Your task to perform on an android device: turn off priority inbox in the gmail app Image 0: 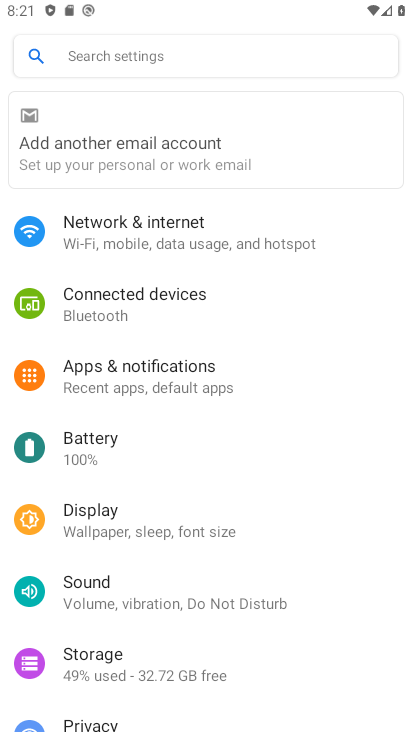
Step 0: press home button
Your task to perform on an android device: turn off priority inbox in the gmail app Image 1: 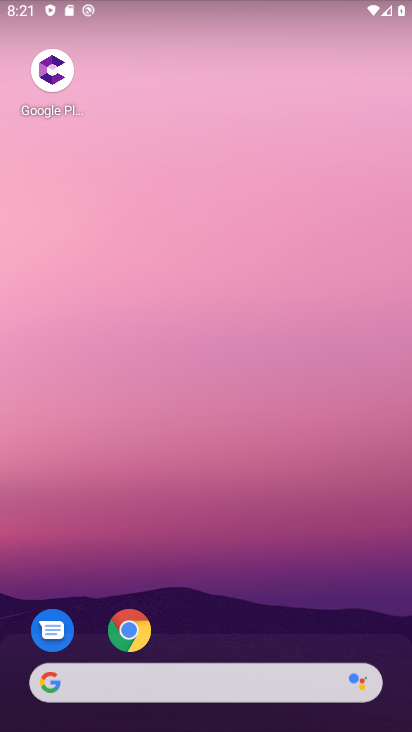
Step 1: drag from (211, 607) to (288, 11)
Your task to perform on an android device: turn off priority inbox in the gmail app Image 2: 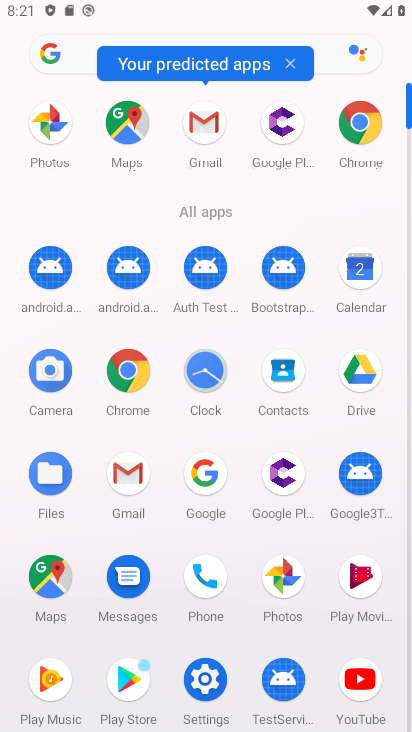
Step 2: click (128, 498)
Your task to perform on an android device: turn off priority inbox in the gmail app Image 3: 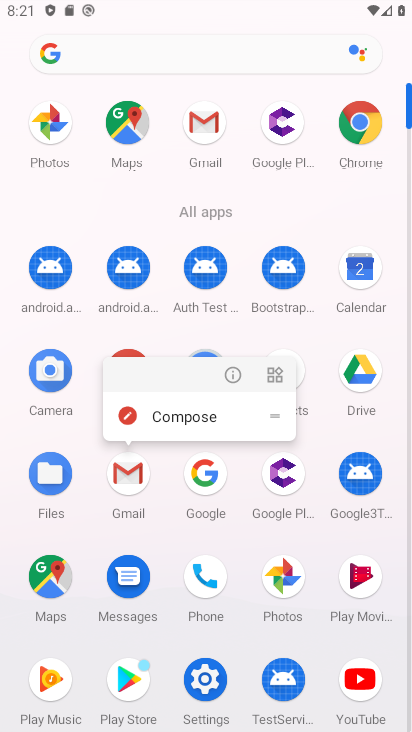
Step 3: click (128, 498)
Your task to perform on an android device: turn off priority inbox in the gmail app Image 4: 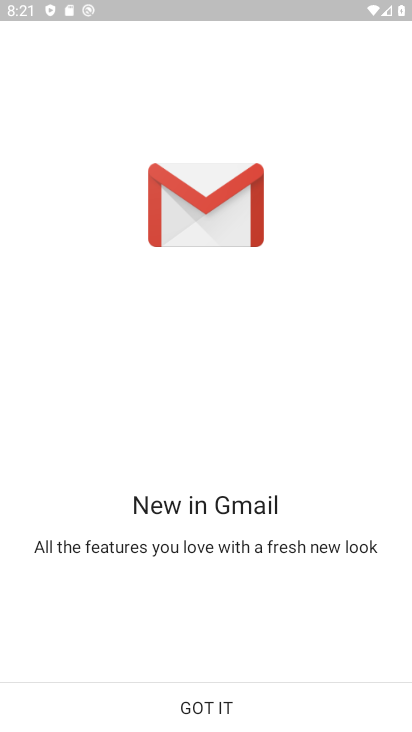
Step 4: click (217, 702)
Your task to perform on an android device: turn off priority inbox in the gmail app Image 5: 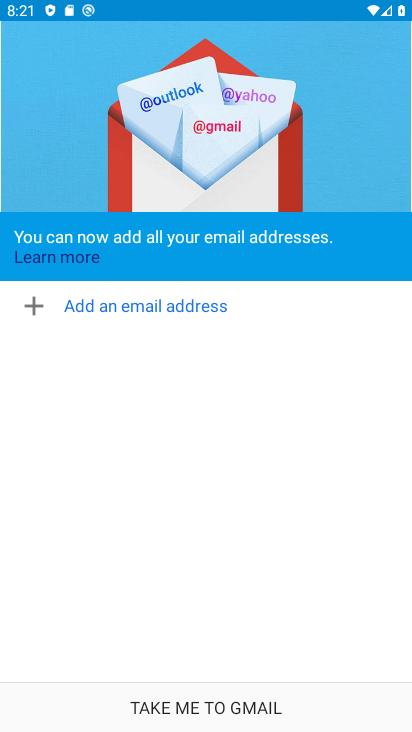
Step 5: click (237, 724)
Your task to perform on an android device: turn off priority inbox in the gmail app Image 6: 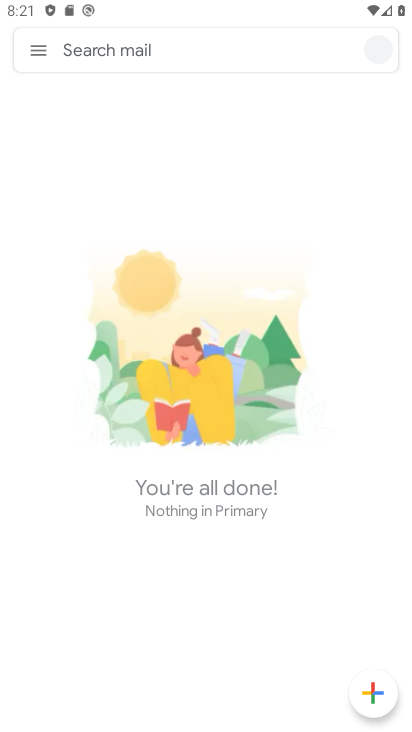
Step 6: click (36, 46)
Your task to perform on an android device: turn off priority inbox in the gmail app Image 7: 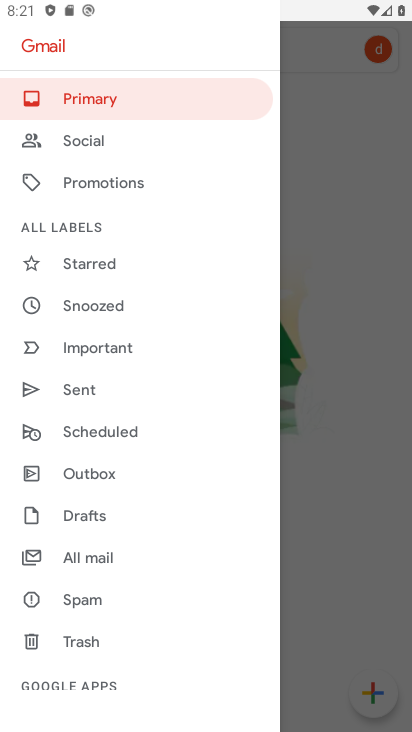
Step 7: drag from (86, 614) to (174, 106)
Your task to perform on an android device: turn off priority inbox in the gmail app Image 8: 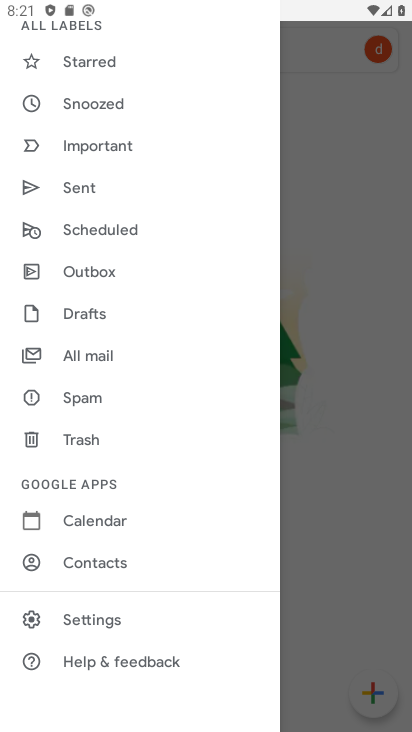
Step 8: click (100, 616)
Your task to perform on an android device: turn off priority inbox in the gmail app Image 9: 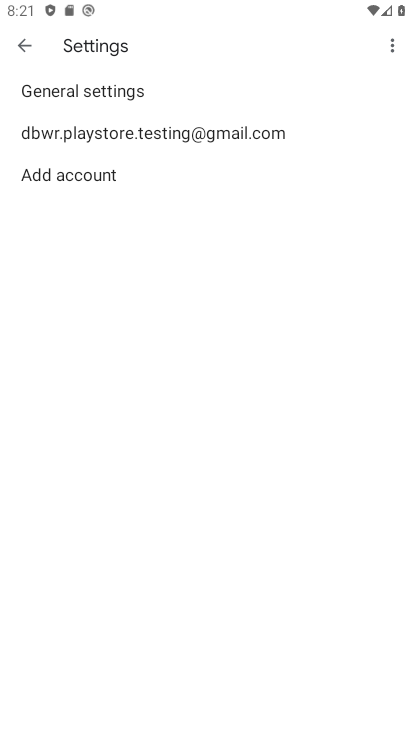
Step 9: click (104, 134)
Your task to perform on an android device: turn off priority inbox in the gmail app Image 10: 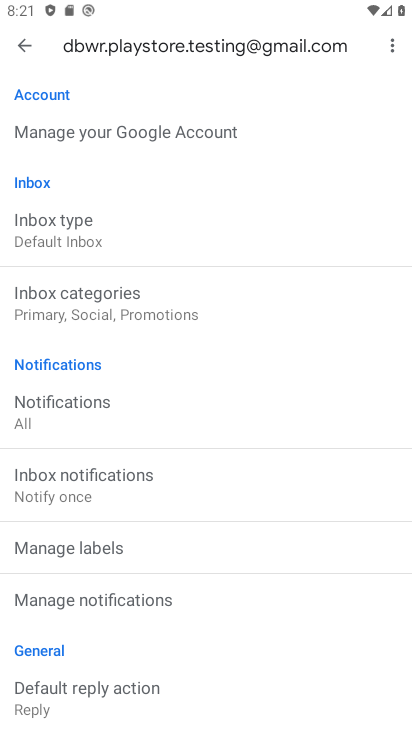
Step 10: click (87, 242)
Your task to perform on an android device: turn off priority inbox in the gmail app Image 11: 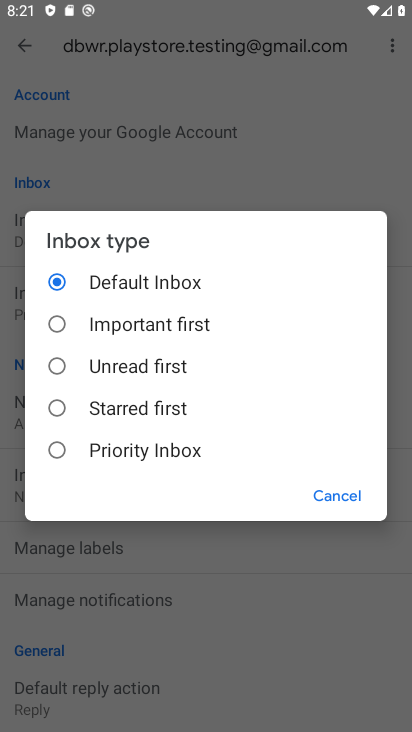
Step 11: click (148, 462)
Your task to perform on an android device: turn off priority inbox in the gmail app Image 12: 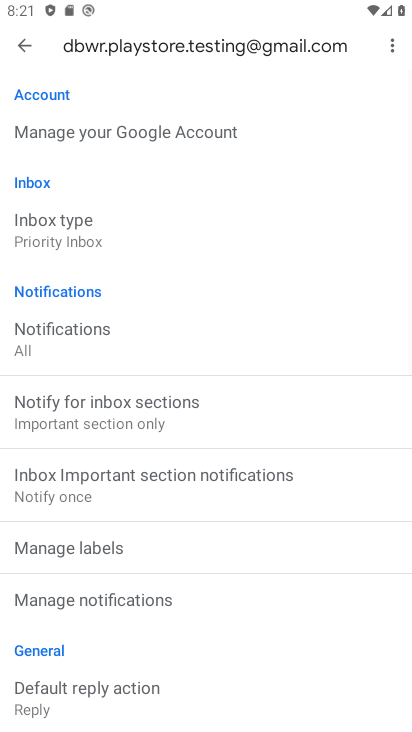
Step 12: click (66, 244)
Your task to perform on an android device: turn off priority inbox in the gmail app Image 13: 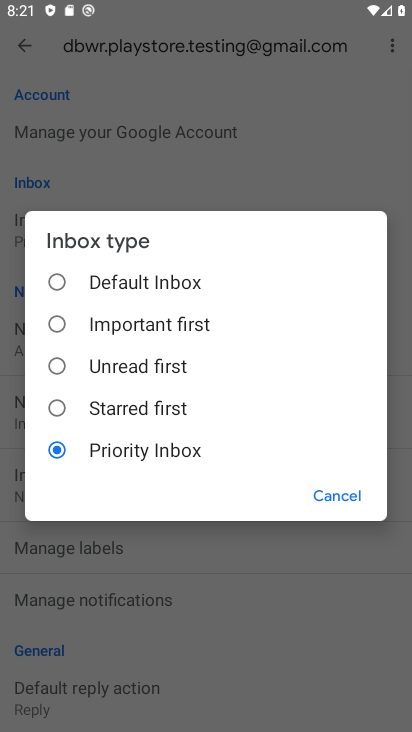
Step 13: click (88, 322)
Your task to perform on an android device: turn off priority inbox in the gmail app Image 14: 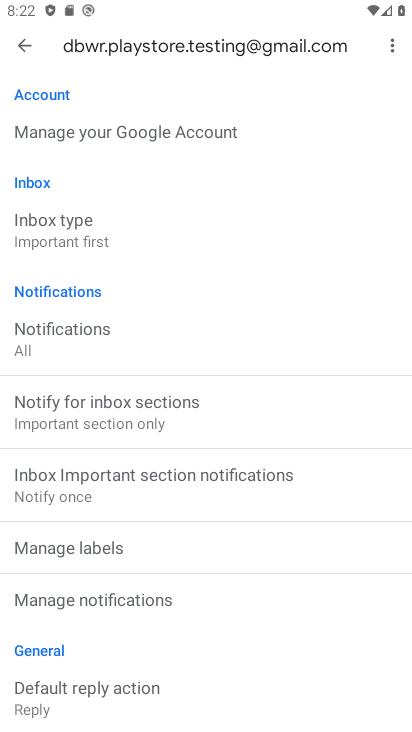
Step 14: task complete